Your task to perform on an android device: Is it going to rain today? Image 0: 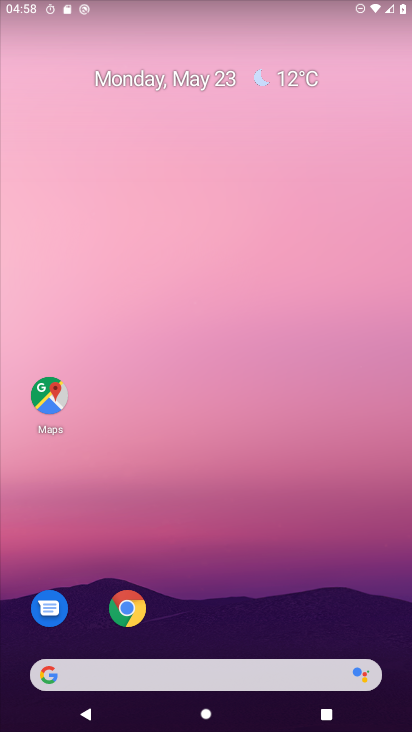
Step 0: click (307, 83)
Your task to perform on an android device: Is it going to rain today? Image 1: 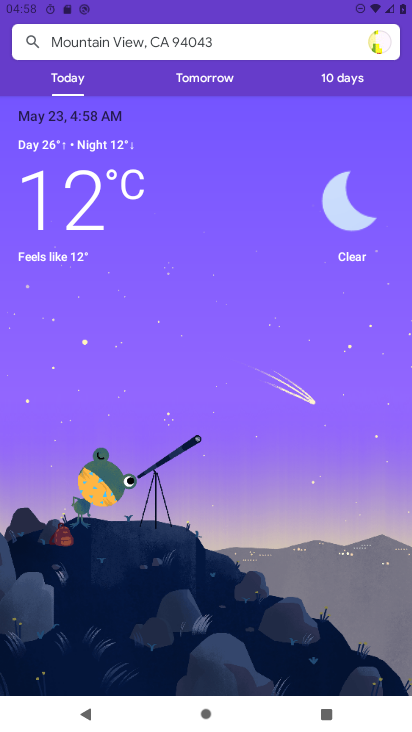
Step 1: task complete